Your task to perform on an android device: set the timer Image 0: 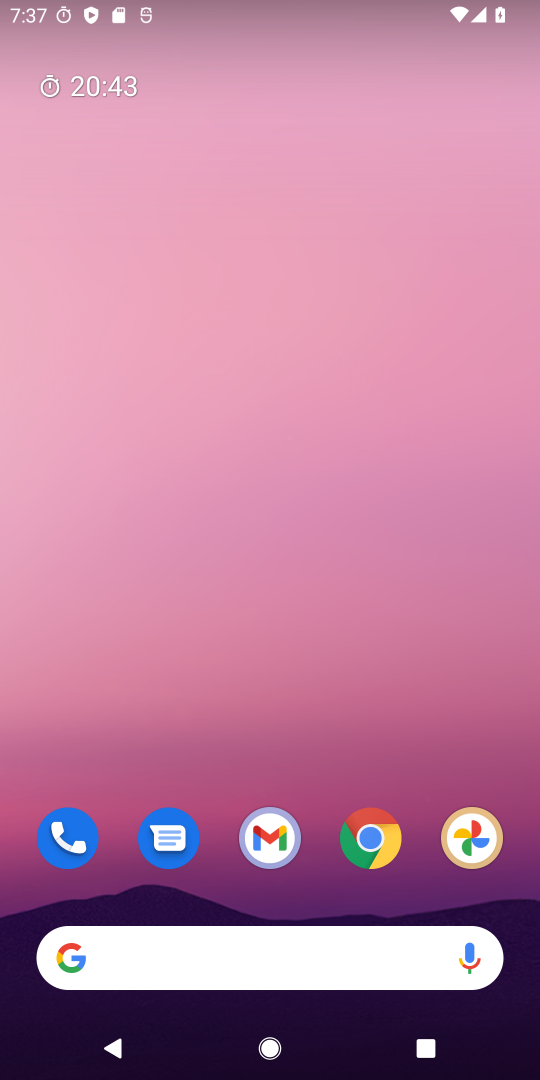
Step 0: drag from (310, 828) to (326, 85)
Your task to perform on an android device: set the timer Image 1: 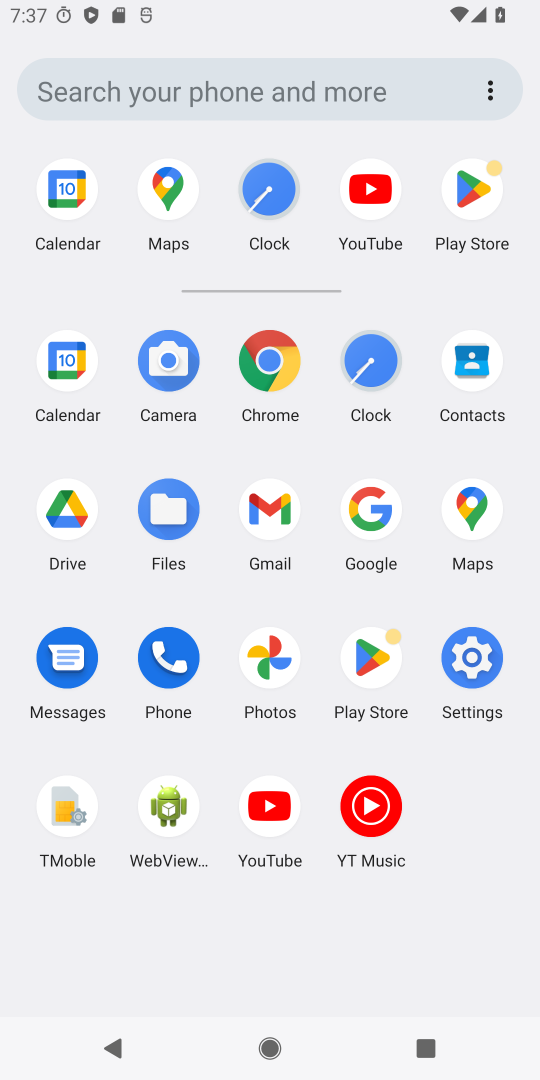
Step 1: click (387, 349)
Your task to perform on an android device: set the timer Image 2: 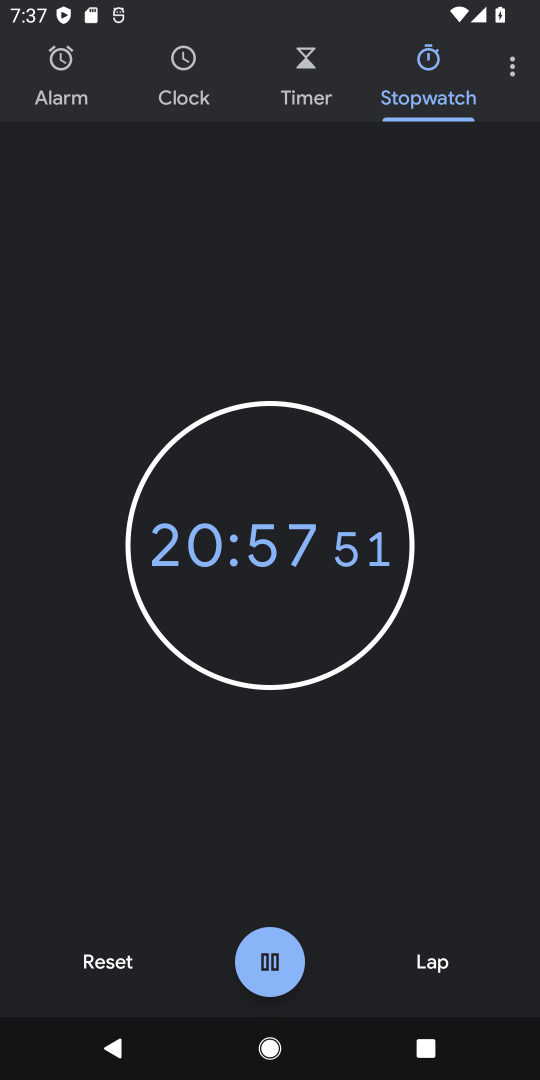
Step 2: click (513, 66)
Your task to perform on an android device: set the timer Image 3: 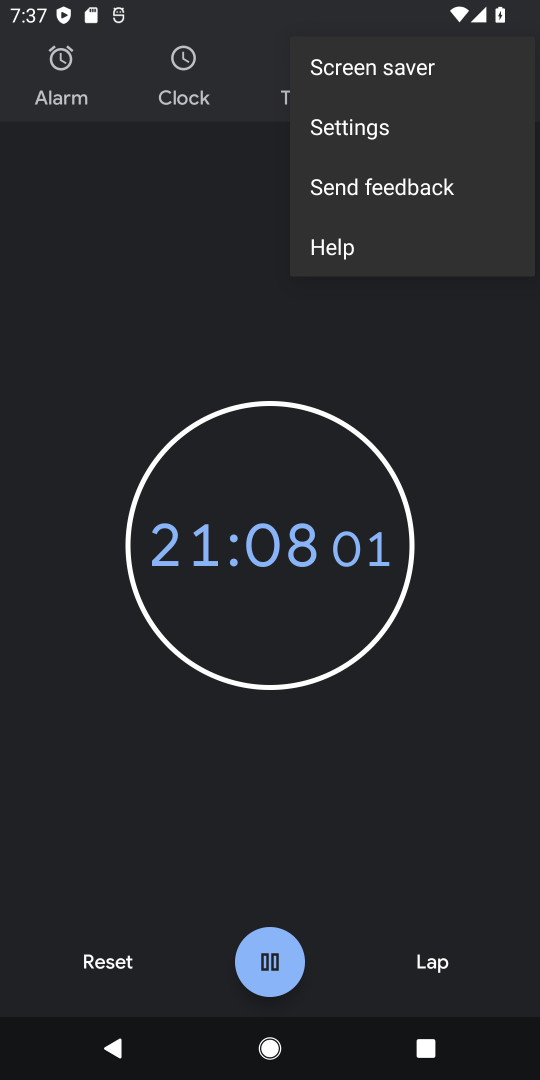
Step 3: click (344, 135)
Your task to perform on an android device: set the timer Image 4: 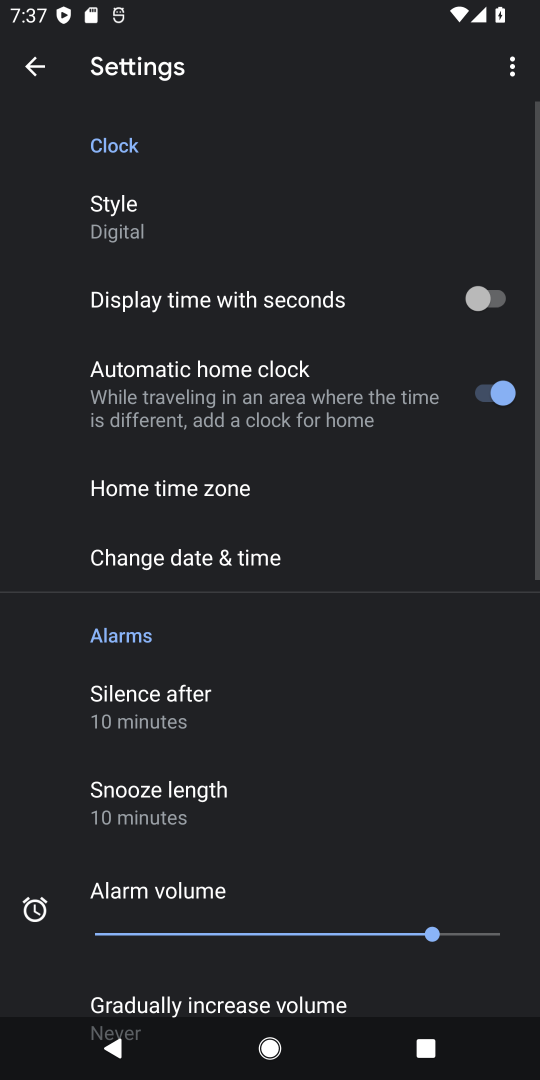
Step 4: click (24, 68)
Your task to perform on an android device: set the timer Image 5: 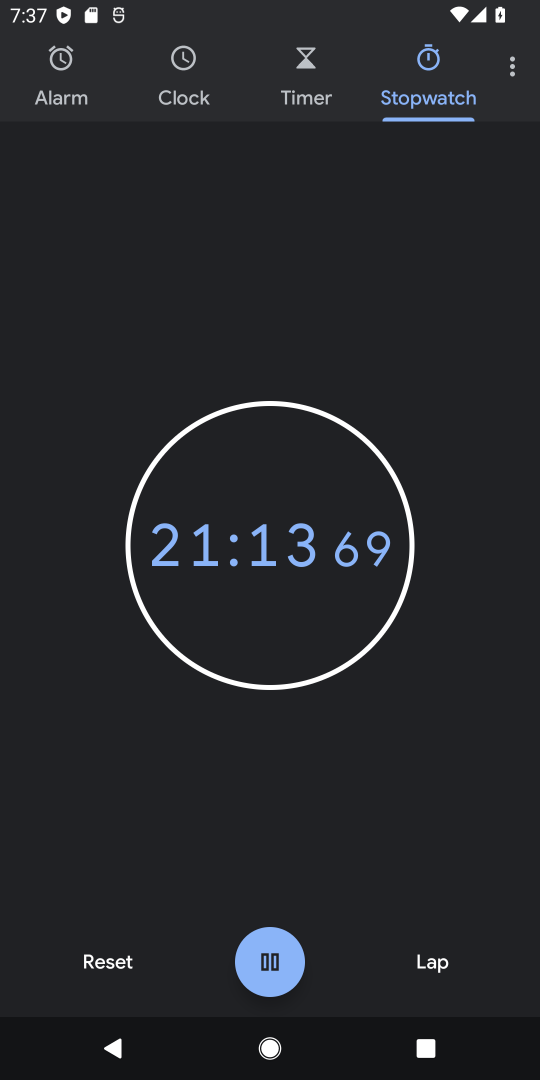
Step 5: click (288, 89)
Your task to perform on an android device: set the timer Image 6: 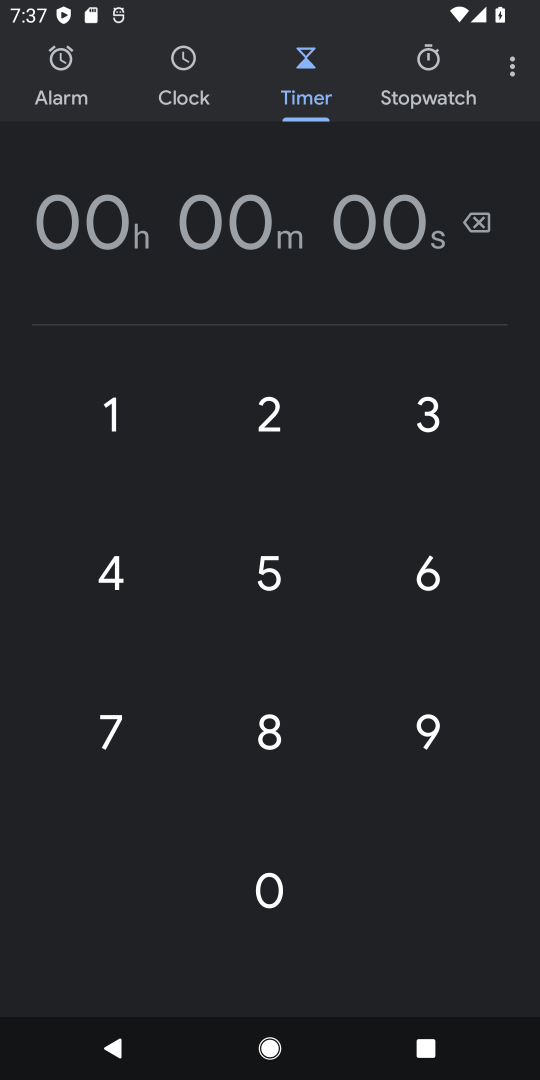
Step 6: click (278, 727)
Your task to perform on an android device: set the timer Image 7: 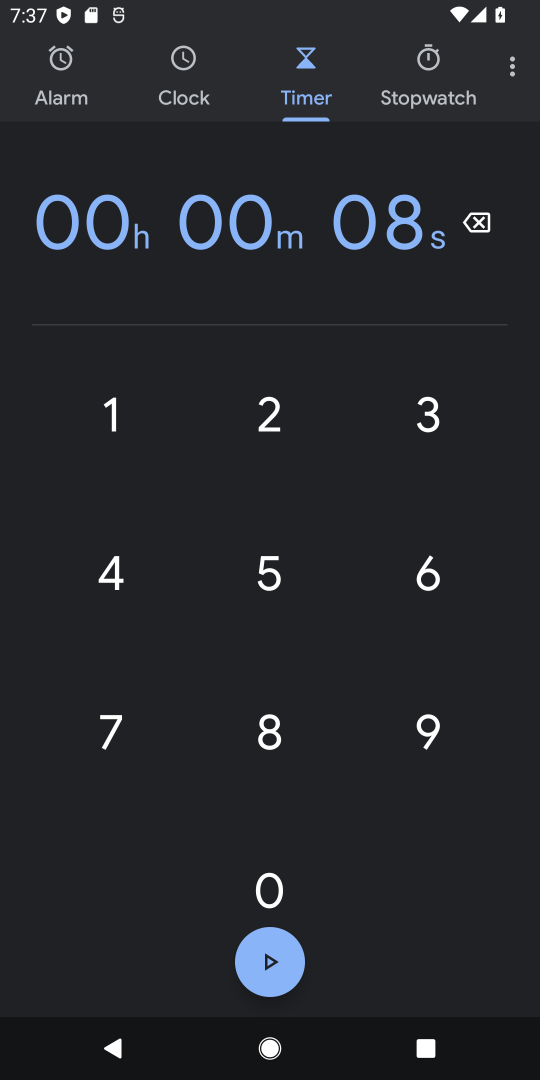
Step 7: click (265, 421)
Your task to perform on an android device: set the timer Image 8: 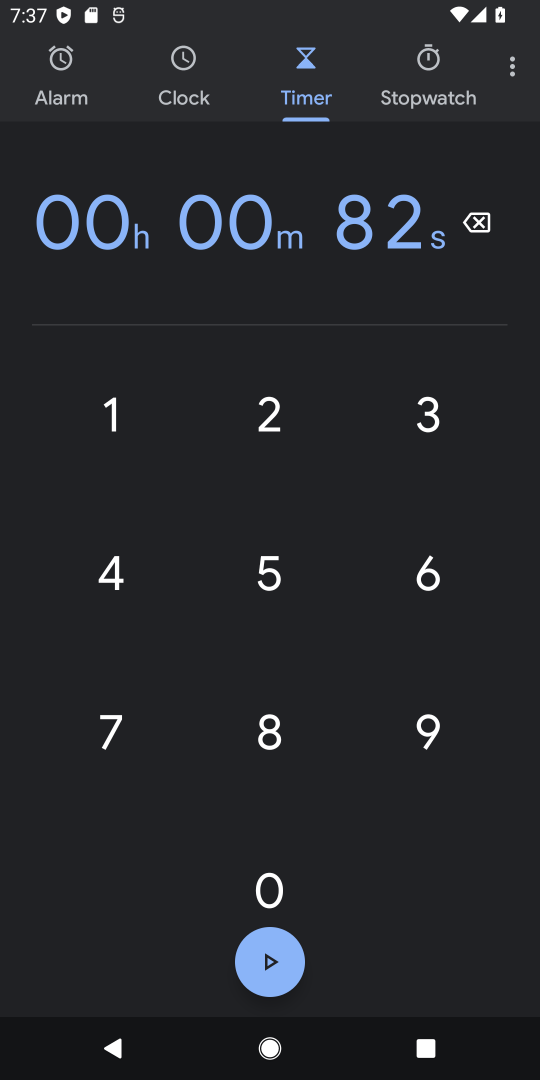
Step 8: click (426, 408)
Your task to perform on an android device: set the timer Image 9: 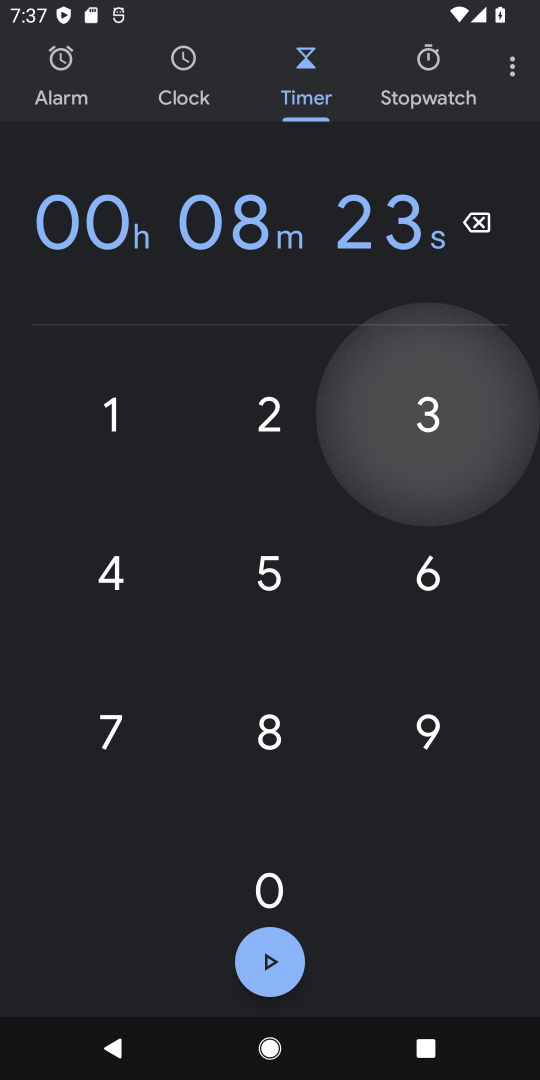
Step 9: click (269, 407)
Your task to perform on an android device: set the timer Image 10: 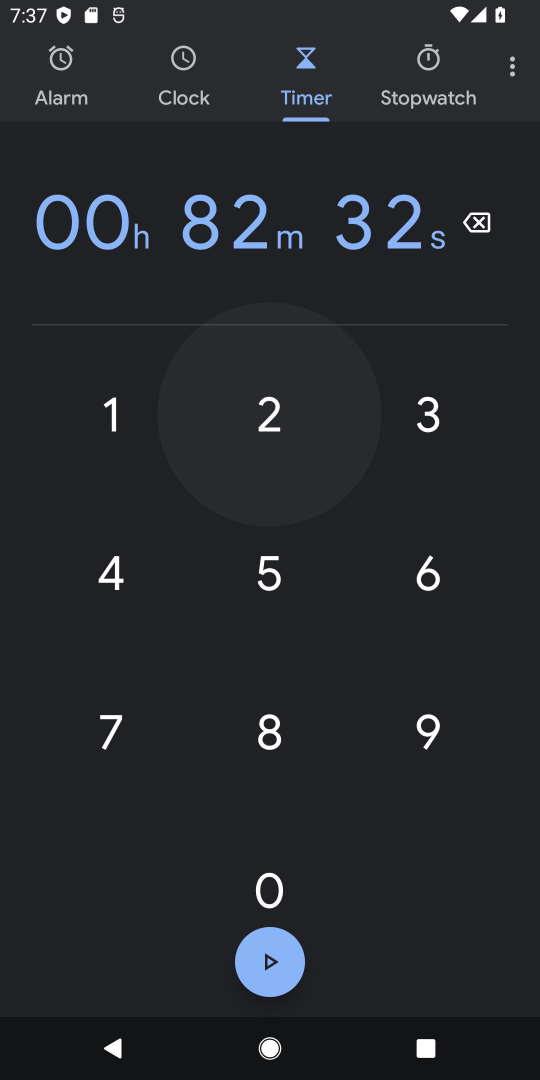
Step 10: click (388, 576)
Your task to perform on an android device: set the timer Image 11: 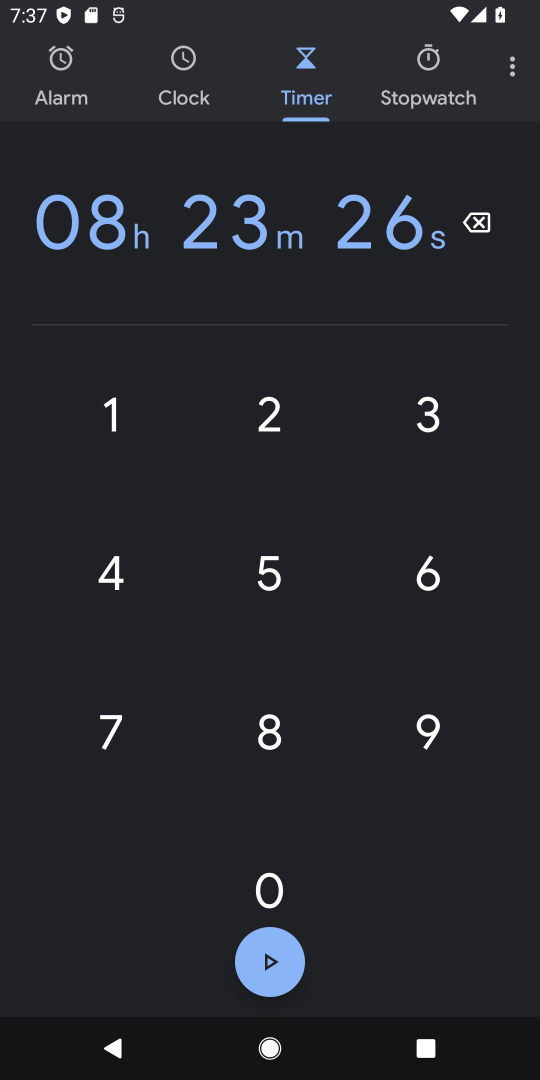
Step 11: task complete